Your task to perform on an android device: choose inbox layout in the gmail app Image 0: 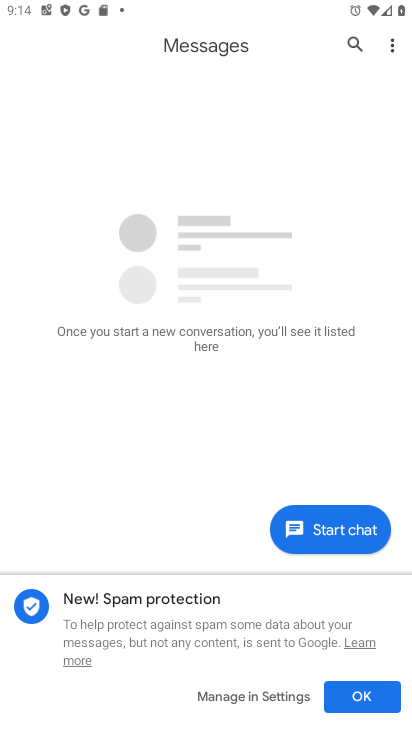
Step 0: press home button
Your task to perform on an android device: choose inbox layout in the gmail app Image 1: 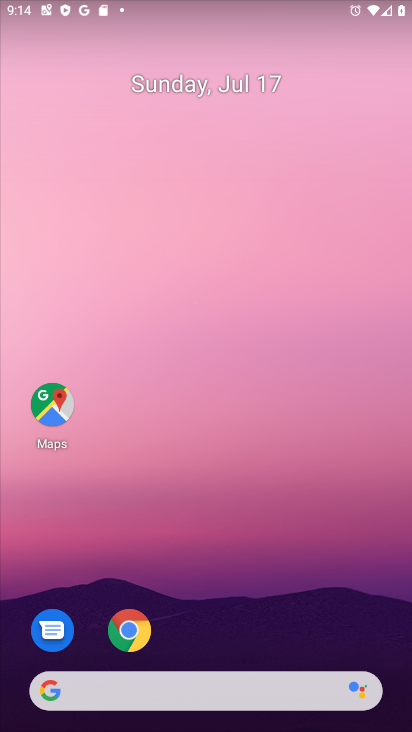
Step 1: drag from (201, 644) to (179, 204)
Your task to perform on an android device: choose inbox layout in the gmail app Image 2: 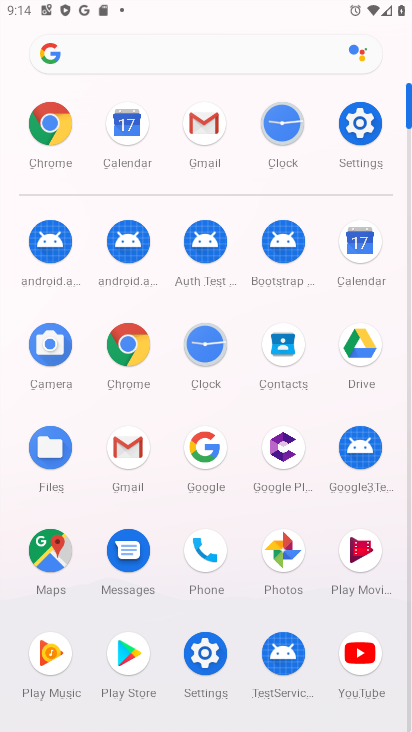
Step 2: click (197, 142)
Your task to perform on an android device: choose inbox layout in the gmail app Image 3: 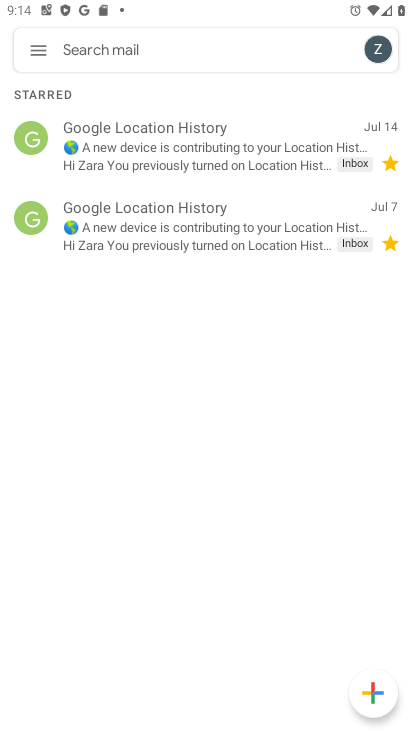
Step 3: click (41, 50)
Your task to perform on an android device: choose inbox layout in the gmail app Image 4: 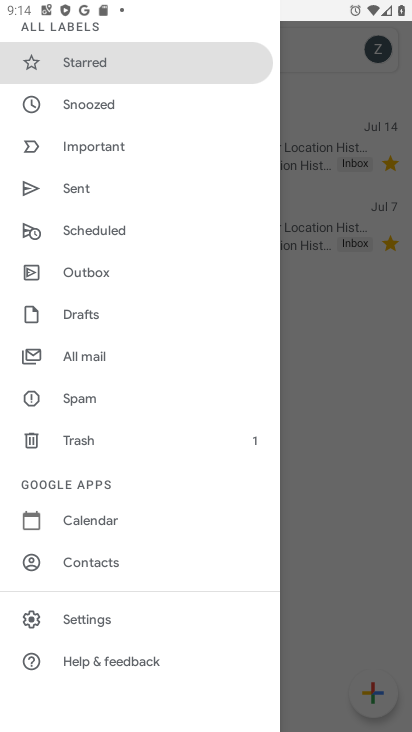
Step 4: click (89, 623)
Your task to perform on an android device: choose inbox layout in the gmail app Image 5: 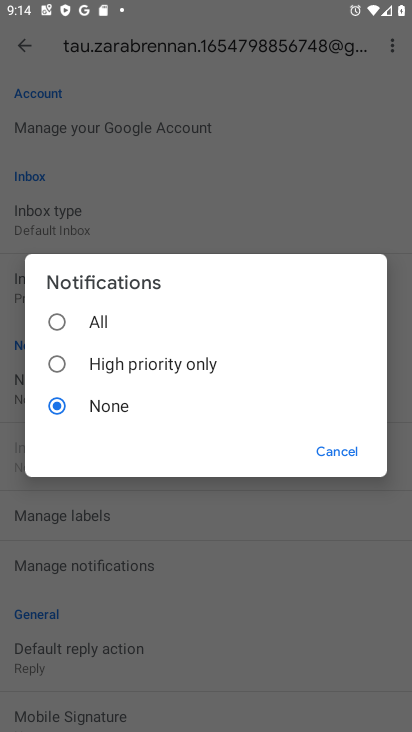
Step 5: click (353, 447)
Your task to perform on an android device: choose inbox layout in the gmail app Image 6: 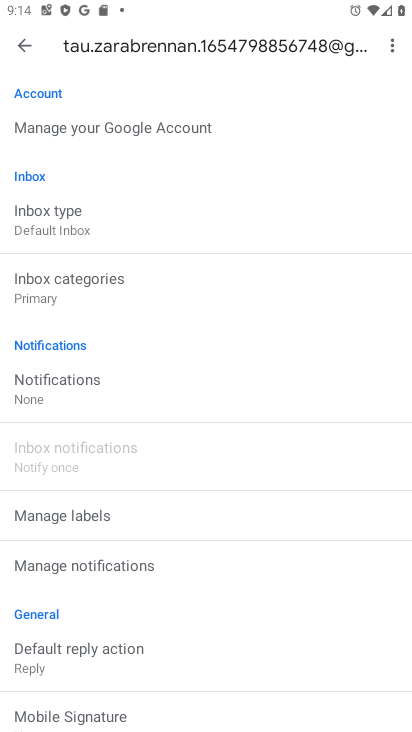
Step 6: click (30, 215)
Your task to perform on an android device: choose inbox layout in the gmail app Image 7: 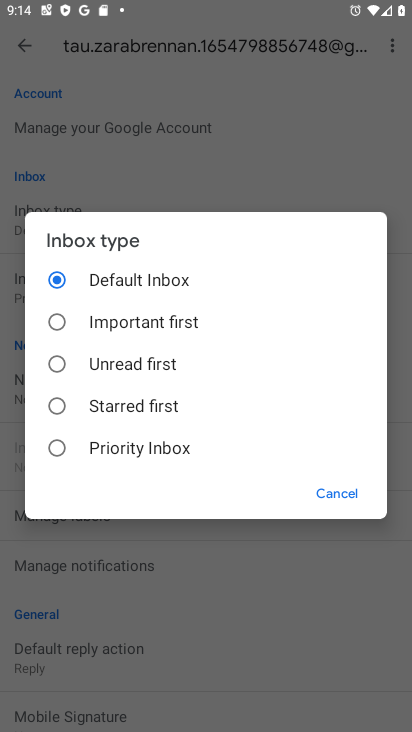
Step 7: click (53, 447)
Your task to perform on an android device: choose inbox layout in the gmail app Image 8: 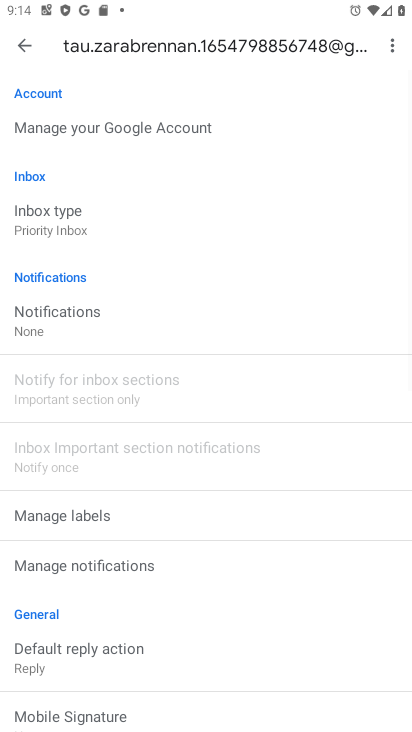
Step 8: task complete